Your task to perform on an android device: manage bookmarks in the chrome app Image 0: 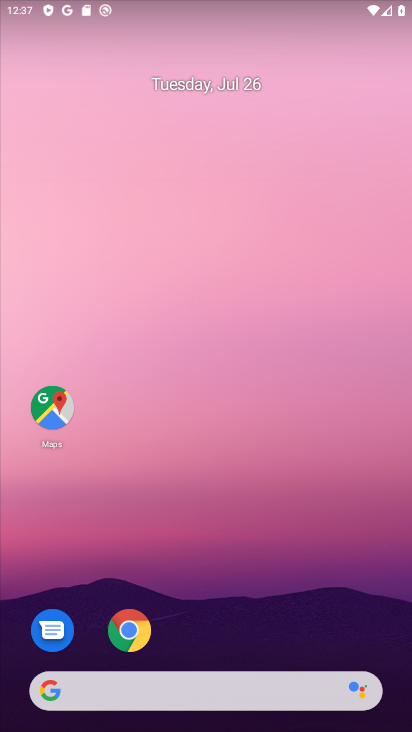
Step 0: click (127, 634)
Your task to perform on an android device: manage bookmarks in the chrome app Image 1: 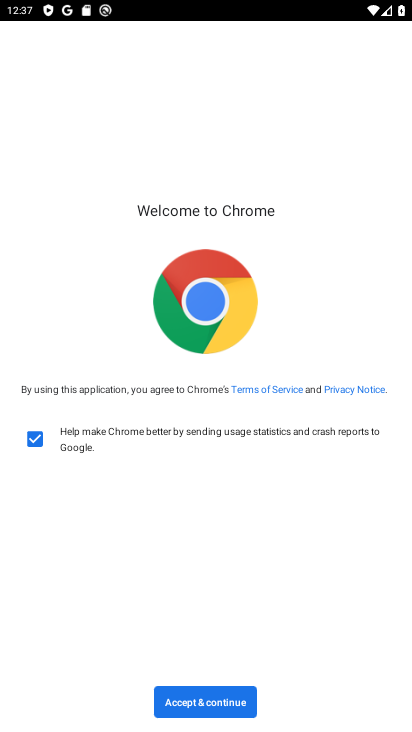
Step 1: click (180, 693)
Your task to perform on an android device: manage bookmarks in the chrome app Image 2: 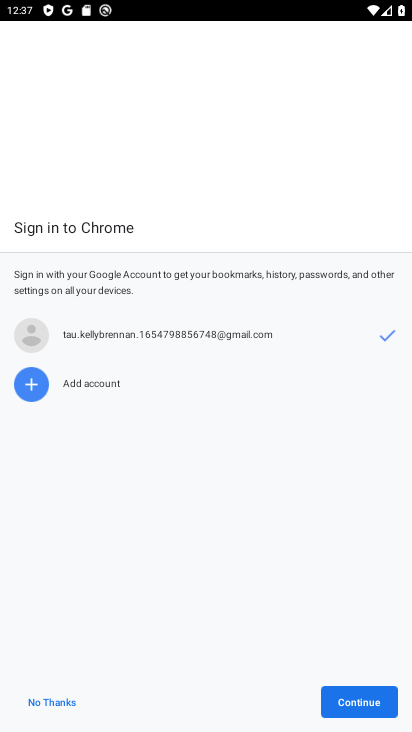
Step 2: click (350, 691)
Your task to perform on an android device: manage bookmarks in the chrome app Image 3: 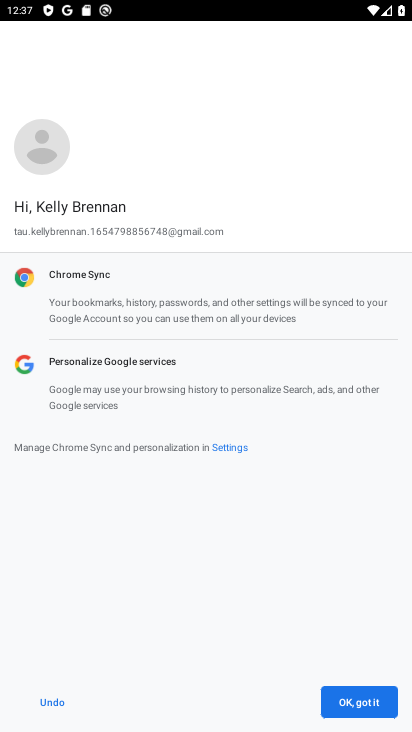
Step 3: click (350, 691)
Your task to perform on an android device: manage bookmarks in the chrome app Image 4: 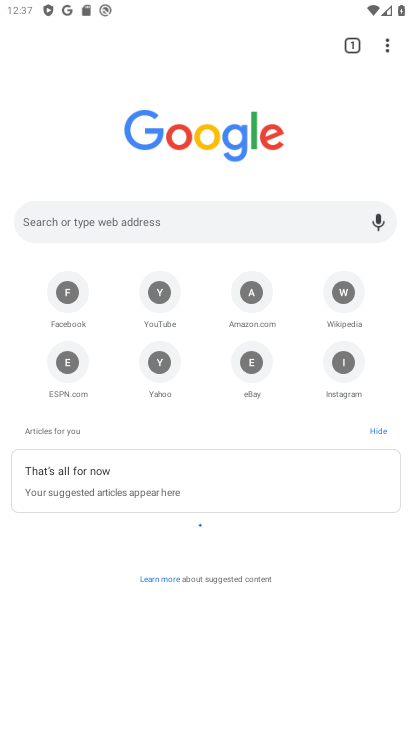
Step 4: click (389, 43)
Your task to perform on an android device: manage bookmarks in the chrome app Image 5: 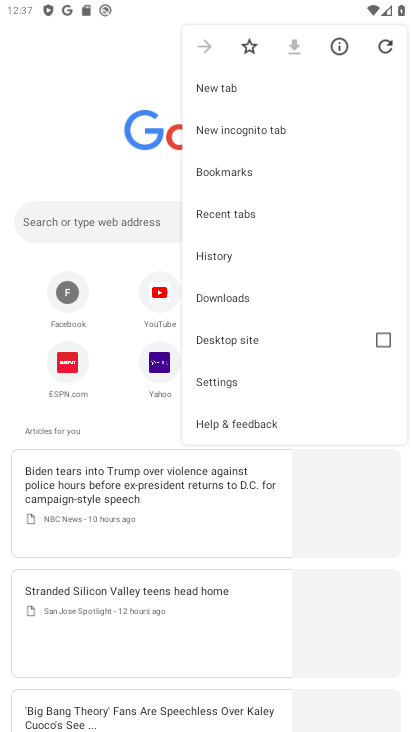
Step 5: click (217, 172)
Your task to perform on an android device: manage bookmarks in the chrome app Image 6: 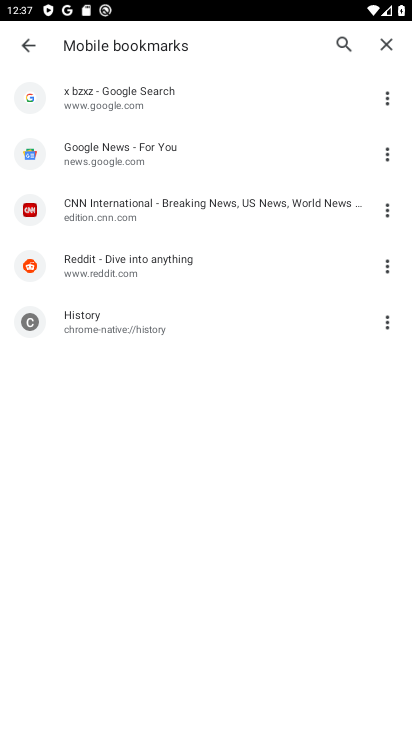
Step 6: task complete